Your task to perform on an android device: Open settings Image 0: 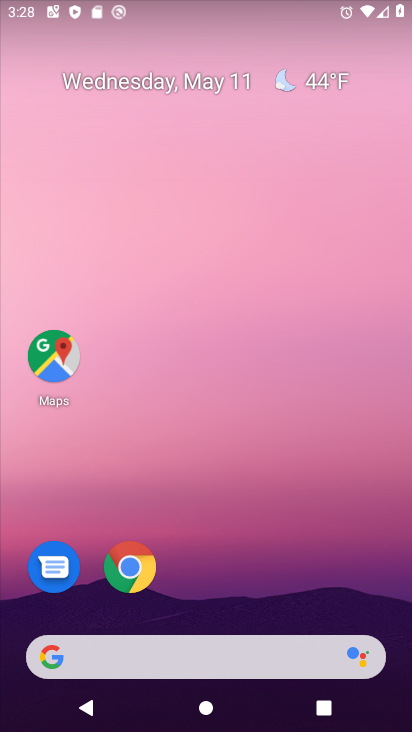
Step 0: drag from (257, 518) to (229, 16)
Your task to perform on an android device: Open settings Image 1: 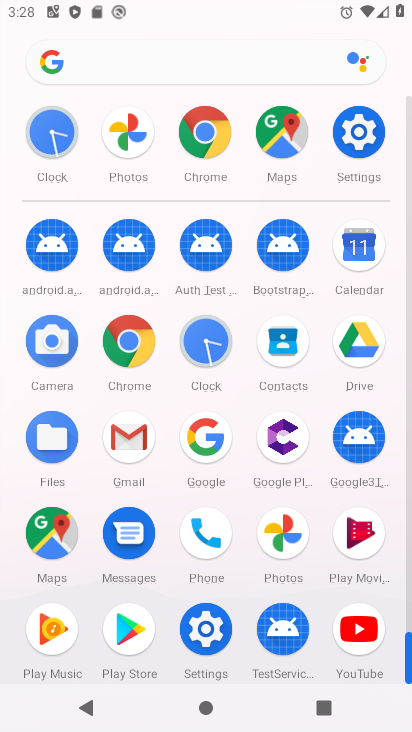
Step 1: drag from (12, 543) to (14, 222)
Your task to perform on an android device: Open settings Image 2: 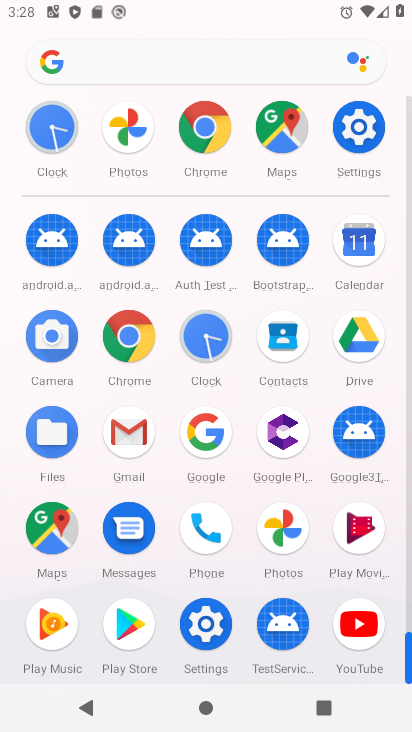
Step 2: click (205, 618)
Your task to perform on an android device: Open settings Image 3: 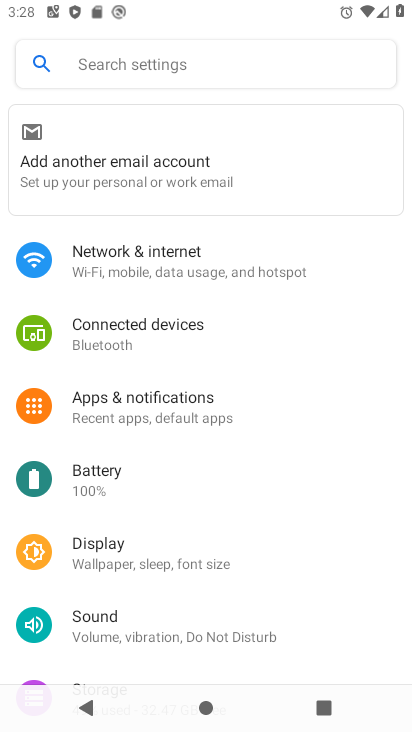
Step 3: task complete